Your task to perform on an android device: What's on my calendar today? Image 0: 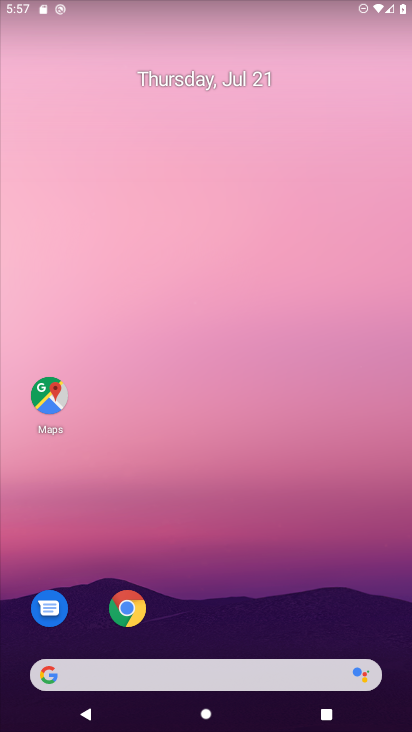
Step 0: drag from (216, 672) to (264, 199)
Your task to perform on an android device: What's on my calendar today? Image 1: 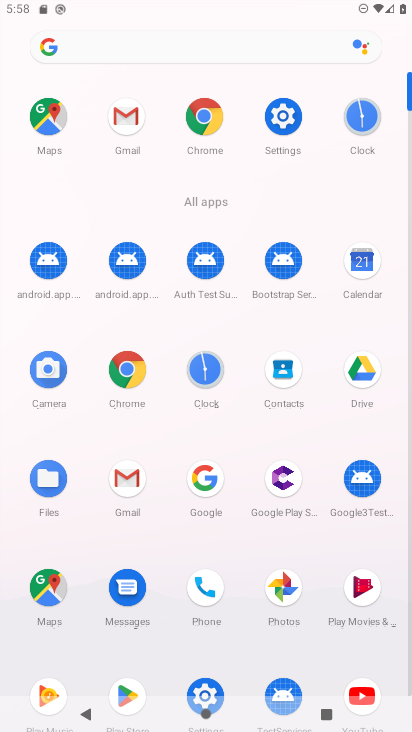
Step 1: click (362, 261)
Your task to perform on an android device: What's on my calendar today? Image 2: 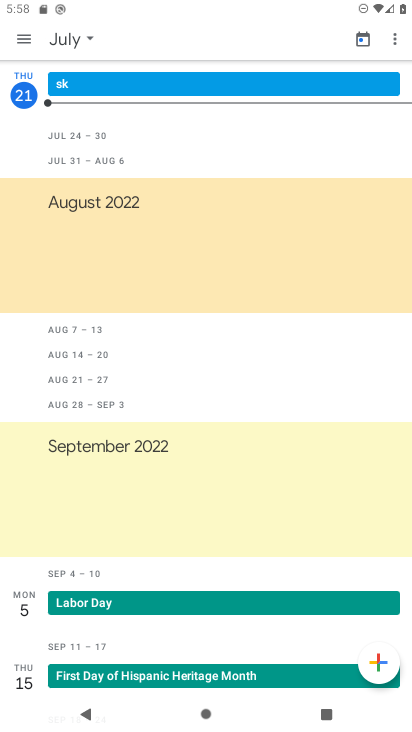
Step 2: click (364, 36)
Your task to perform on an android device: What's on my calendar today? Image 3: 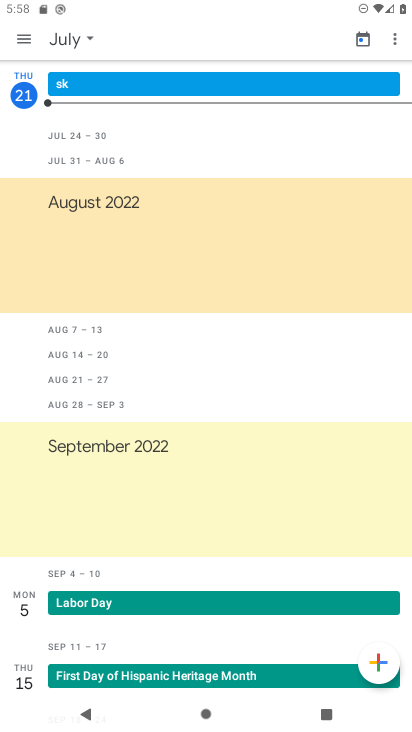
Step 3: click (90, 33)
Your task to perform on an android device: What's on my calendar today? Image 4: 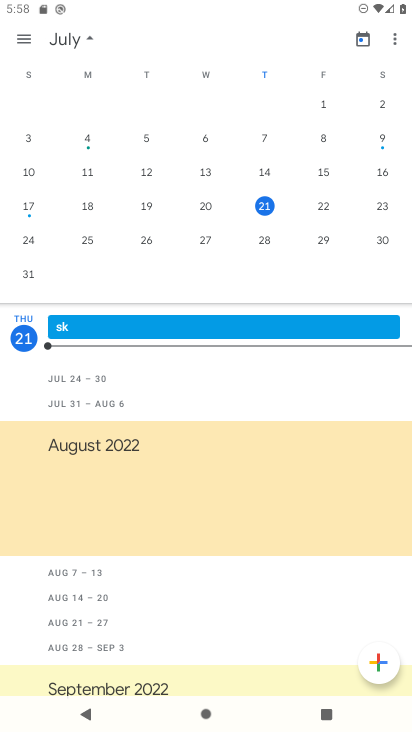
Step 4: task complete